Your task to perform on an android device: clear all cookies in the chrome app Image 0: 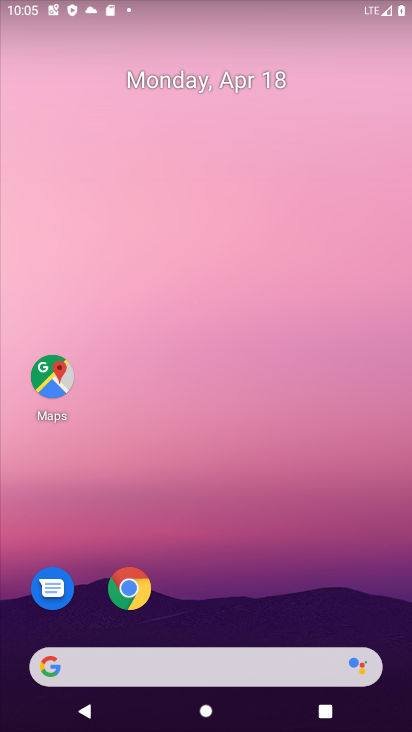
Step 0: click (125, 587)
Your task to perform on an android device: clear all cookies in the chrome app Image 1: 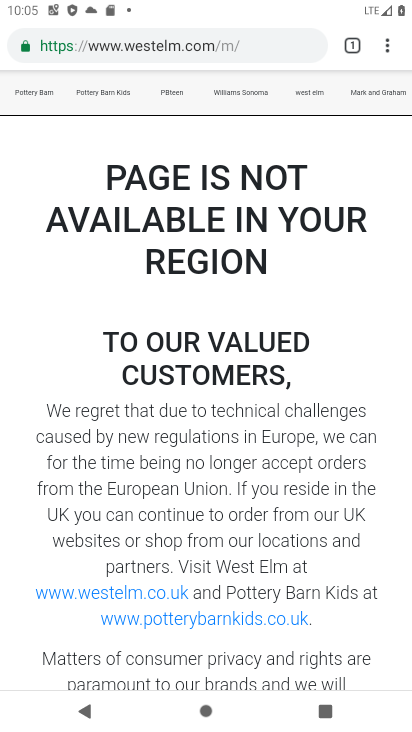
Step 1: click (386, 44)
Your task to perform on an android device: clear all cookies in the chrome app Image 2: 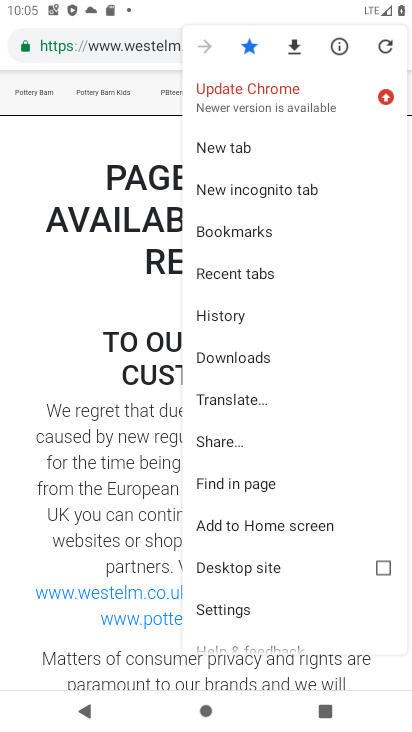
Step 2: click (218, 305)
Your task to perform on an android device: clear all cookies in the chrome app Image 3: 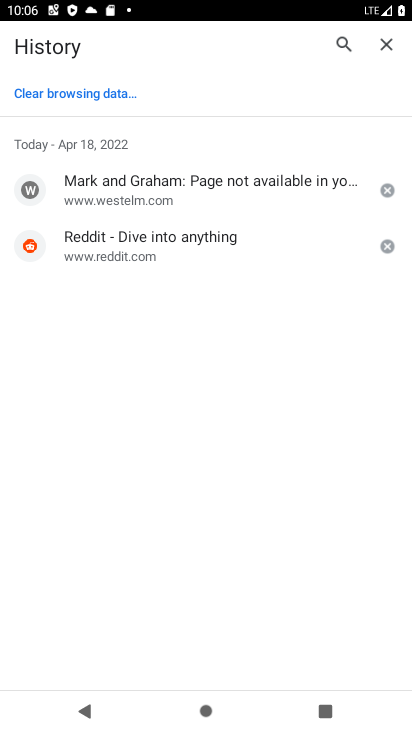
Step 3: click (58, 96)
Your task to perform on an android device: clear all cookies in the chrome app Image 4: 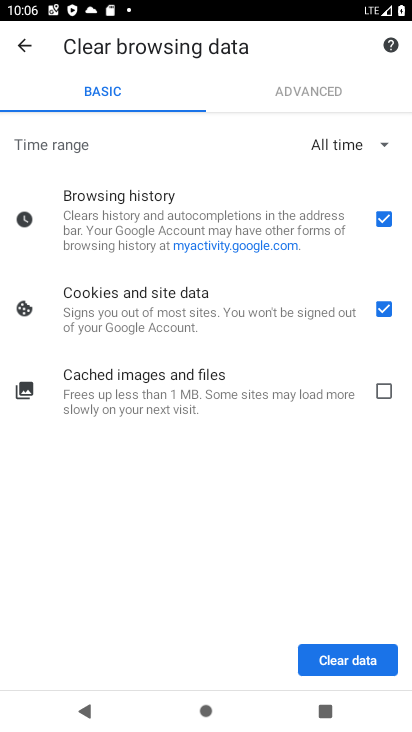
Step 4: click (380, 214)
Your task to perform on an android device: clear all cookies in the chrome app Image 5: 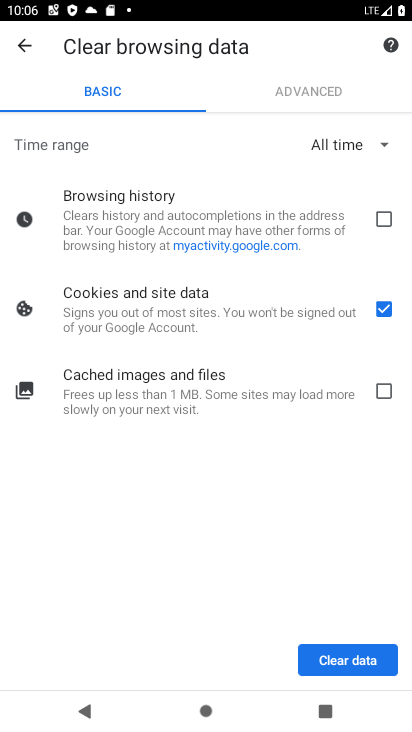
Step 5: click (345, 658)
Your task to perform on an android device: clear all cookies in the chrome app Image 6: 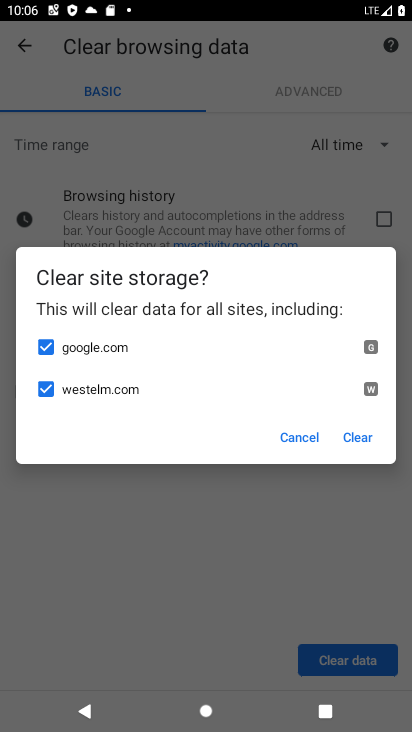
Step 6: click (359, 435)
Your task to perform on an android device: clear all cookies in the chrome app Image 7: 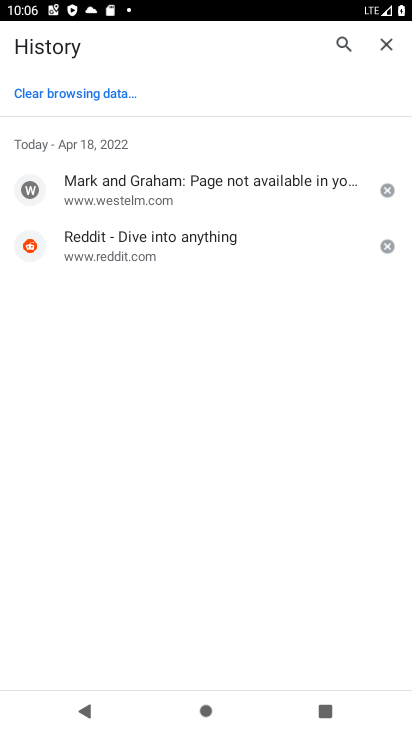
Step 7: task complete